Your task to perform on an android device: refresh tabs in the chrome app Image 0: 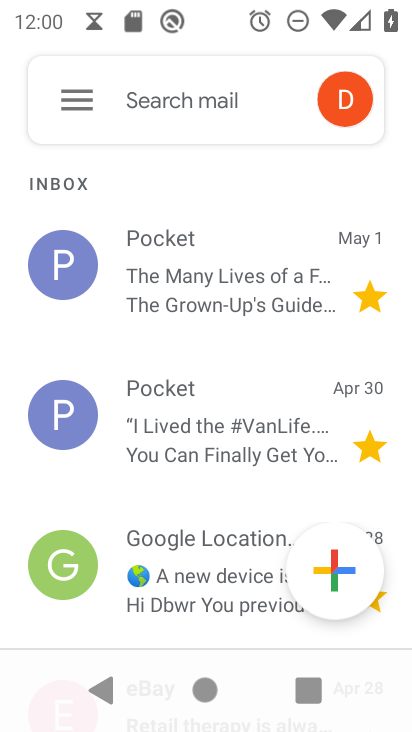
Step 0: press home button
Your task to perform on an android device: refresh tabs in the chrome app Image 1: 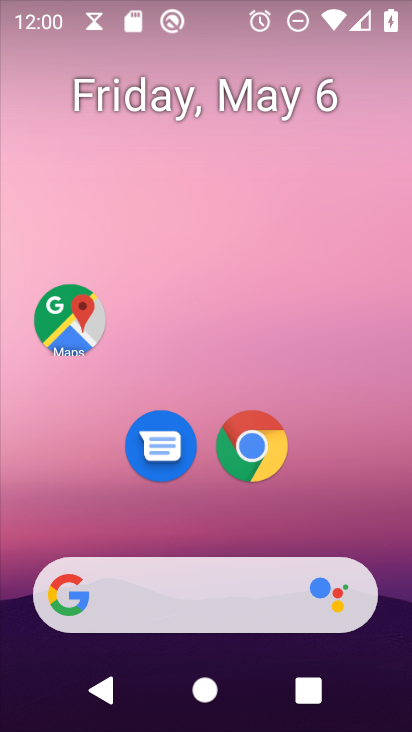
Step 1: drag from (277, 650) to (217, 257)
Your task to perform on an android device: refresh tabs in the chrome app Image 2: 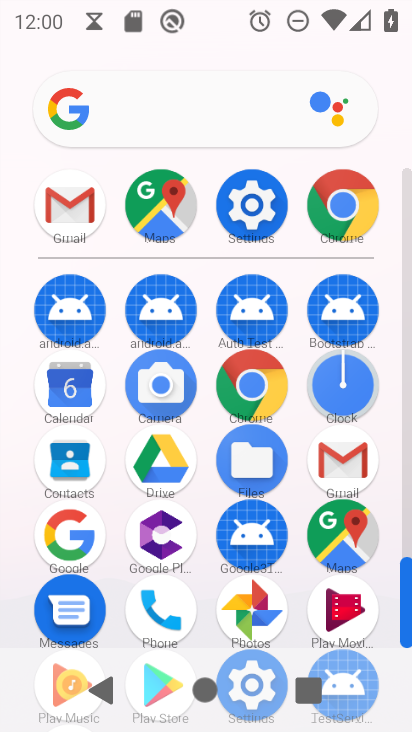
Step 2: click (253, 382)
Your task to perform on an android device: refresh tabs in the chrome app Image 3: 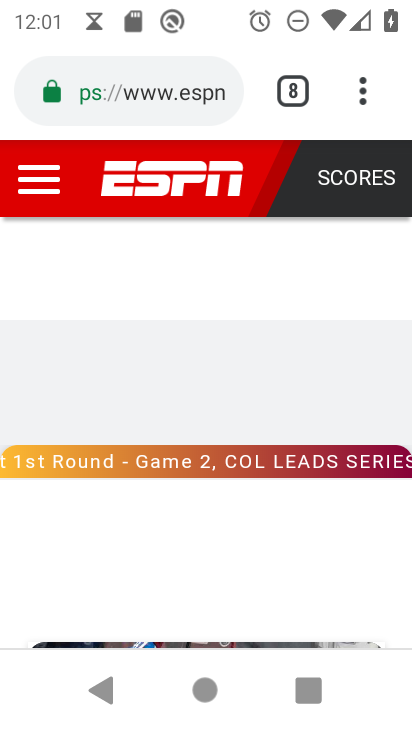
Step 3: click (378, 114)
Your task to perform on an android device: refresh tabs in the chrome app Image 4: 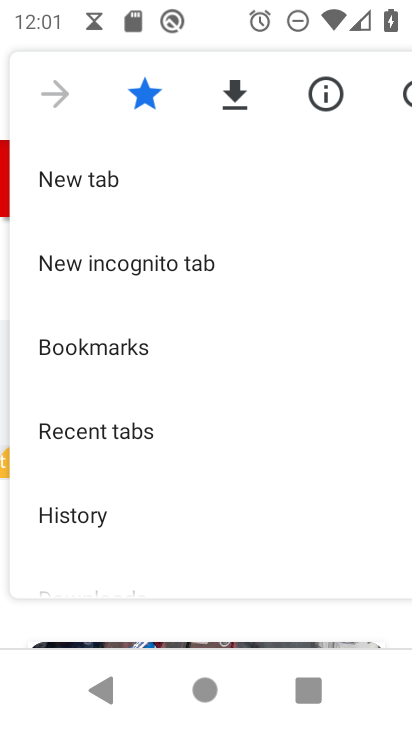
Step 4: click (395, 97)
Your task to perform on an android device: refresh tabs in the chrome app Image 5: 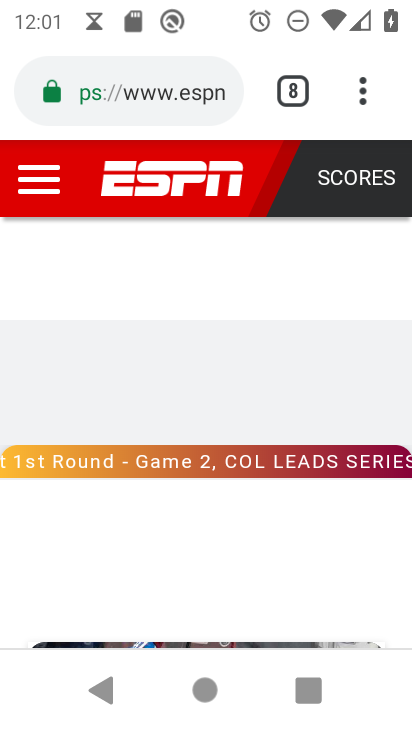
Step 5: task complete